Your task to perform on an android device: stop showing notifications on the lock screen Image 0: 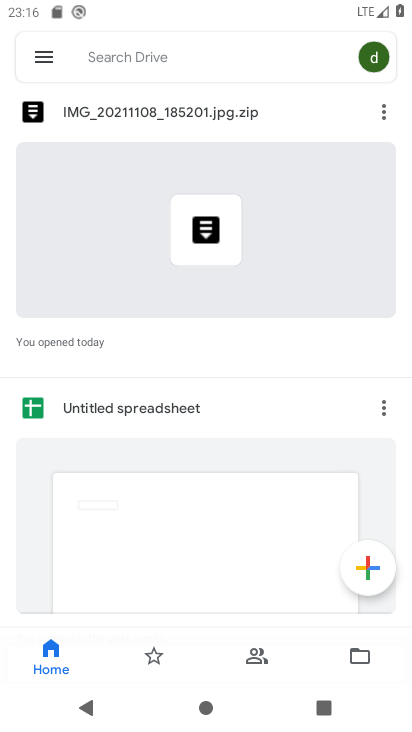
Step 0: press home button
Your task to perform on an android device: stop showing notifications on the lock screen Image 1: 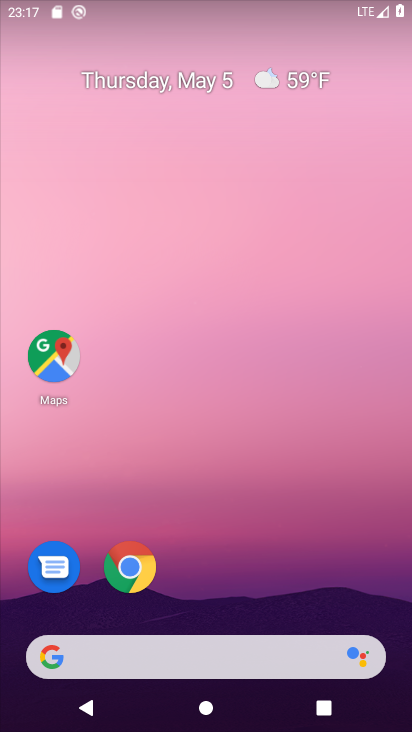
Step 1: drag from (364, 527) to (347, 6)
Your task to perform on an android device: stop showing notifications on the lock screen Image 2: 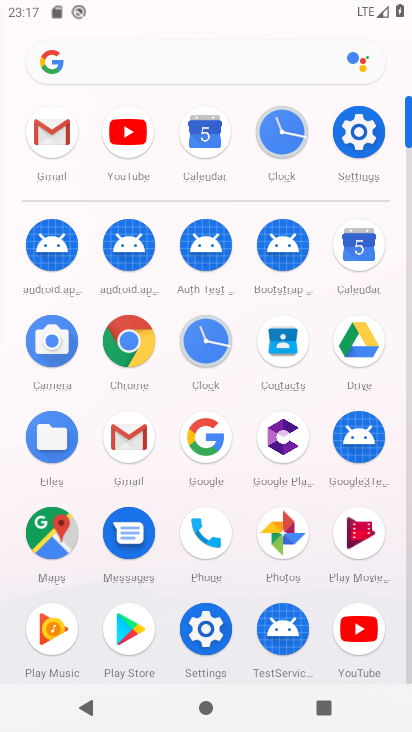
Step 2: click (354, 134)
Your task to perform on an android device: stop showing notifications on the lock screen Image 3: 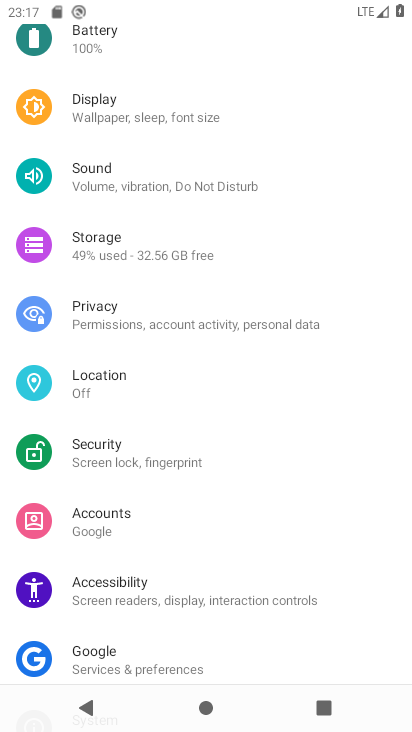
Step 3: drag from (378, 182) to (343, 489)
Your task to perform on an android device: stop showing notifications on the lock screen Image 4: 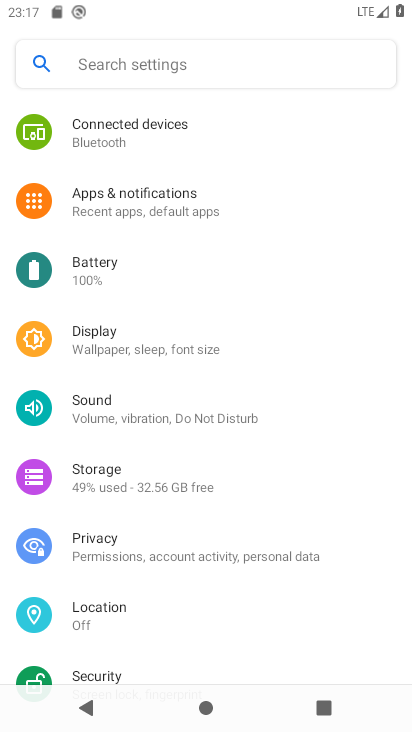
Step 4: click (145, 205)
Your task to perform on an android device: stop showing notifications on the lock screen Image 5: 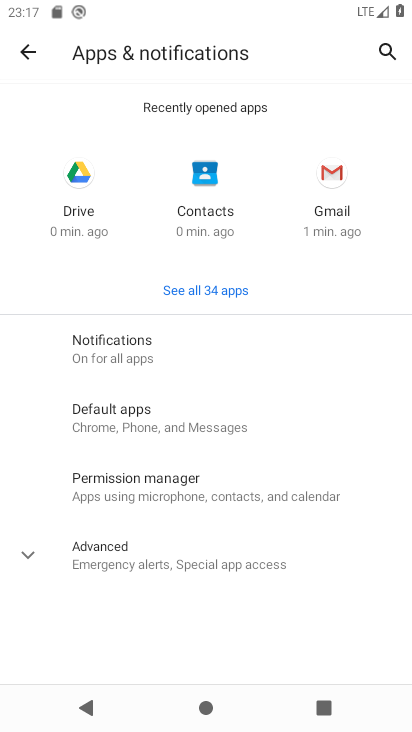
Step 5: click (102, 346)
Your task to perform on an android device: stop showing notifications on the lock screen Image 6: 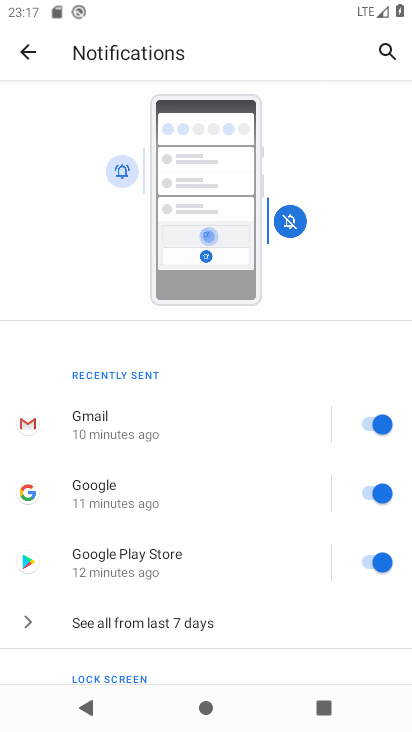
Step 6: drag from (181, 545) to (189, 131)
Your task to perform on an android device: stop showing notifications on the lock screen Image 7: 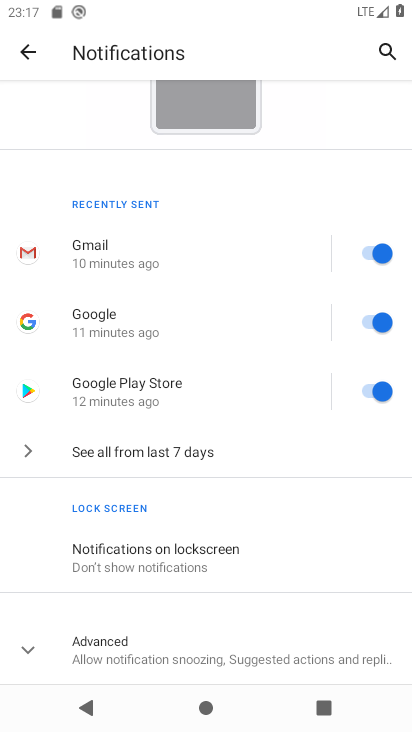
Step 7: click (162, 556)
Your task to perform on an android device: stop showing notifications on the lock screen Image 8: 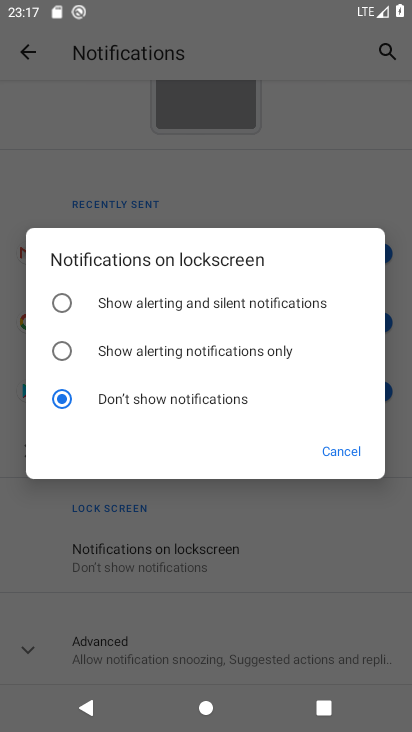
Step 8: task complete